Your task to perform on an android device: change alarm snooze length Image 0: 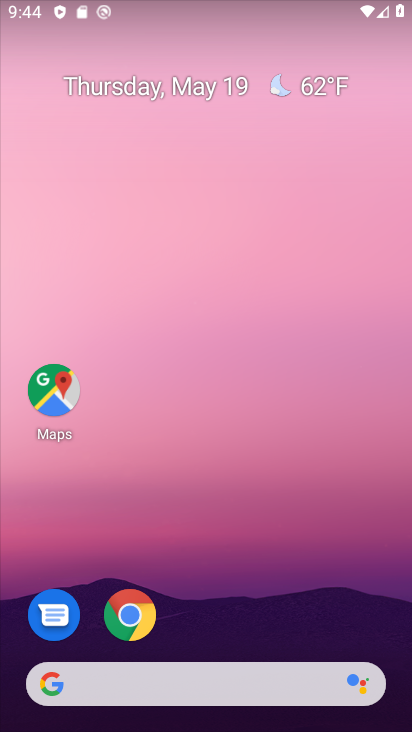
Step 0: drag from (305, 586) to (164, 49)
Your task to perform on an android device: change alarm snooze length Image 1: 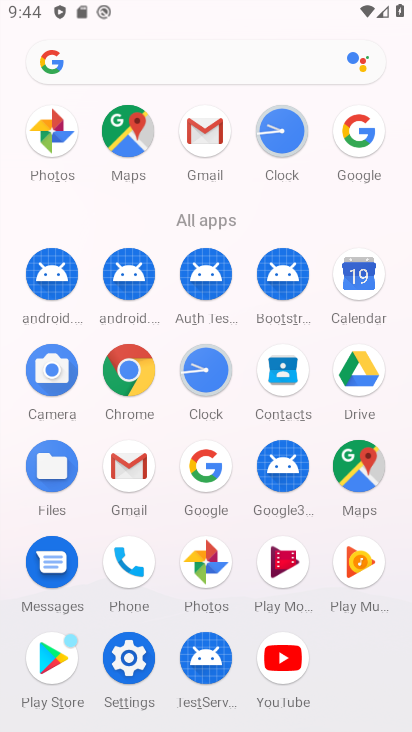
Step 1: click (148, 657)
Your task to perform on an android device: change alarm snooze length Image 2: 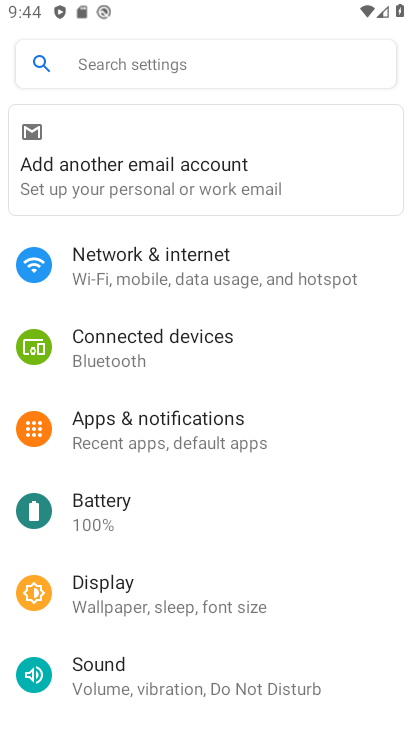
Step 2: press home button
Your task to perform on an android device: change alarm snooze length Image 3: 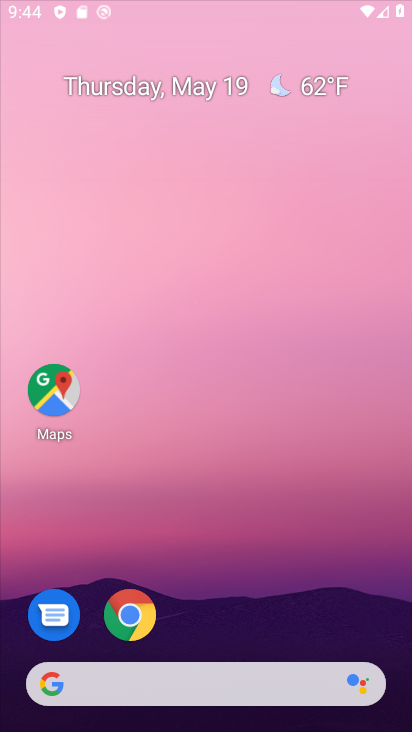
Step 3: drag from (236, 444) to (242, 48)
Your task to perform on an android device: change alarm snooze length Image 4: 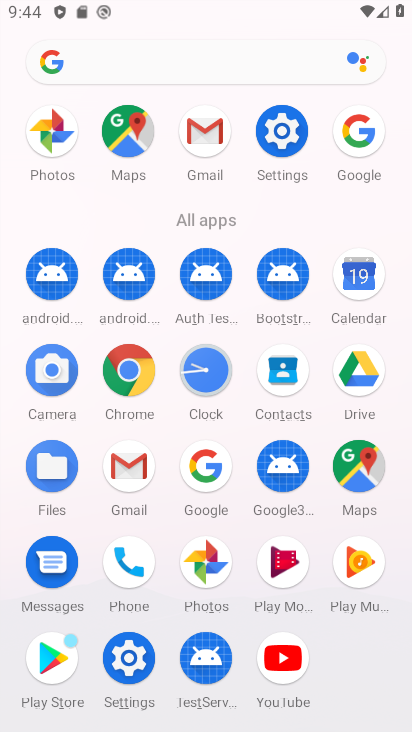
Step 4: click (209, 368)
Your task to perform on an android device: change alarm snooze length Image 5: 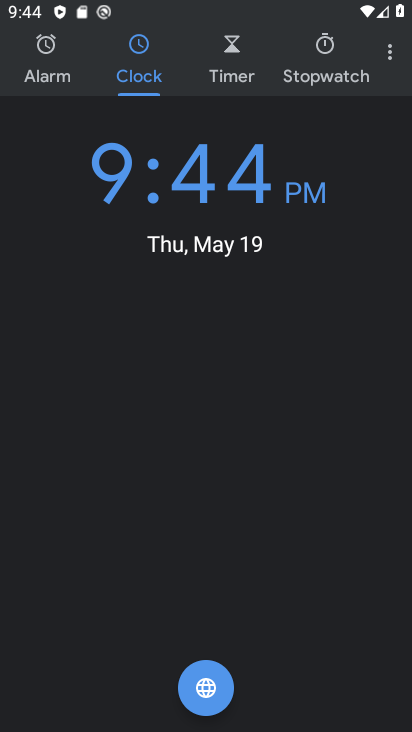
Step 5: click (395, 59)
Your task to perform on an android device: change alarm snooze length Image 6: 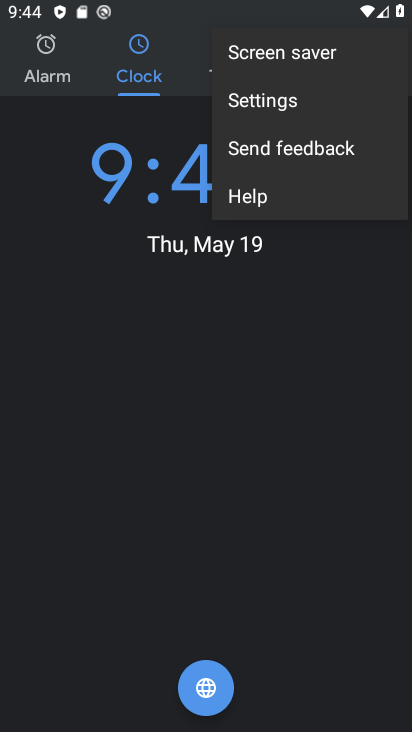
Step 6: click (271, 110)
Your task to perform on an android device: change alarm snooze length Image 7: 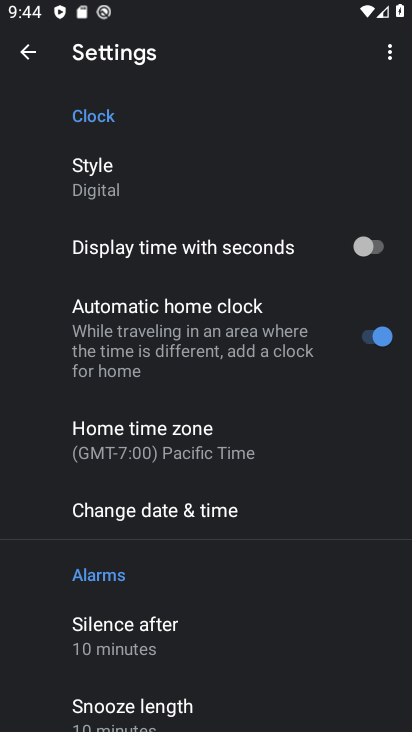
Step 7: drag from (263, 624) to (232, 342)
Your task to perform on an android device: change alarm snooze length Image 8: 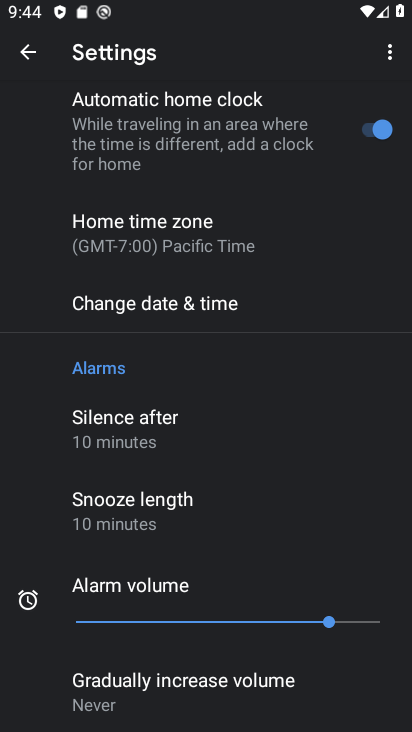
Step 8: click (169, 475)
Your task to perform on an android device: change alarm snooze length Image 9: 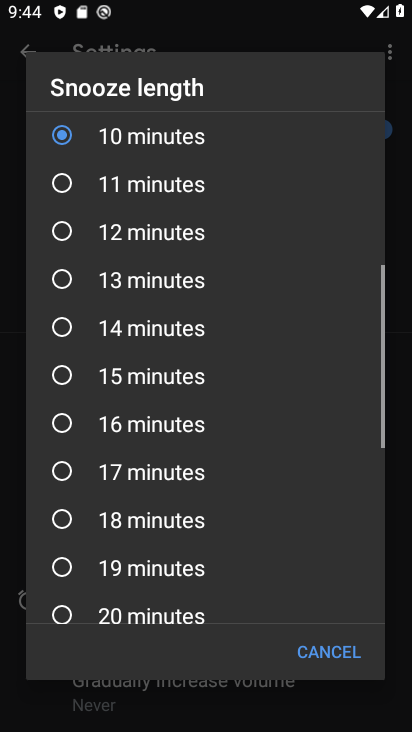
Step 9: click (163, 195)
Your task to perform on an android device: change alarm snooze length Image 10: 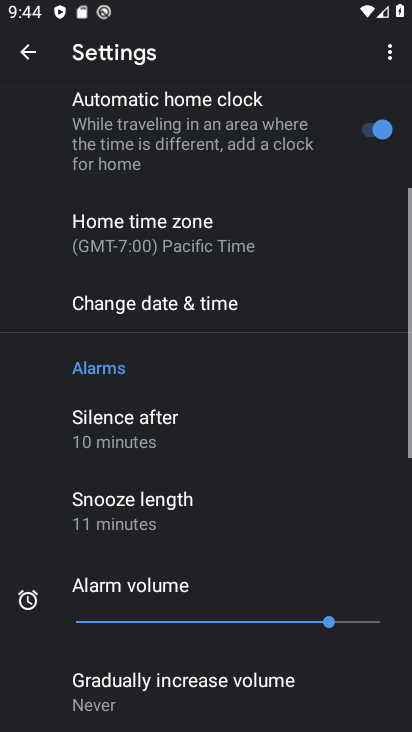
Step 10: task complete